Your task to perform on an android device: Go to Yahoo.com Image 0: 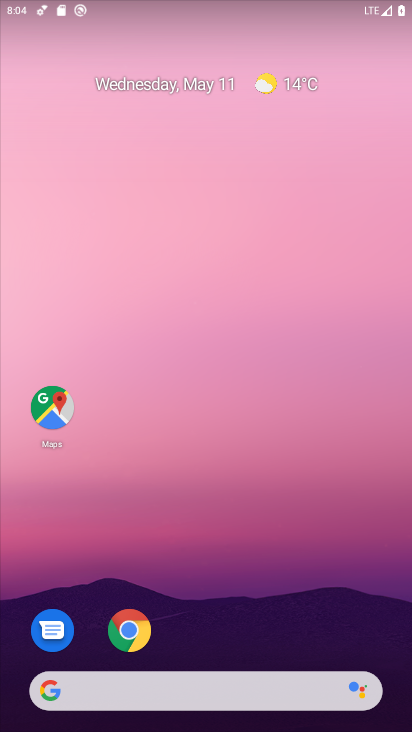
Step 0: click (127, 625)
Your task to perform on an android device: Go to Yahoo.com Image 1: 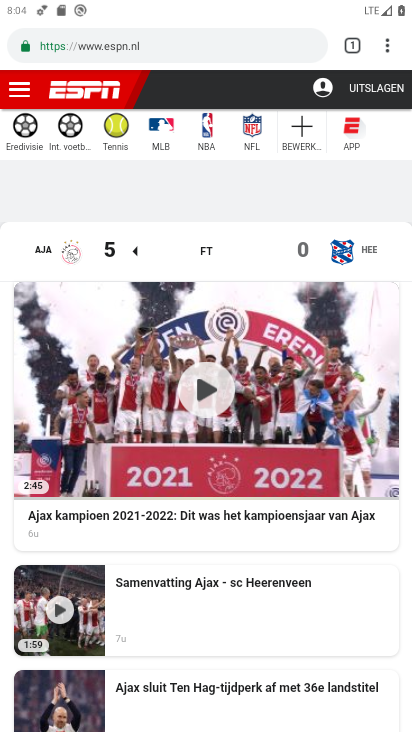
Step 1: press back button
Your task to perform on an android device: Go to Yahoo.com Image 2: 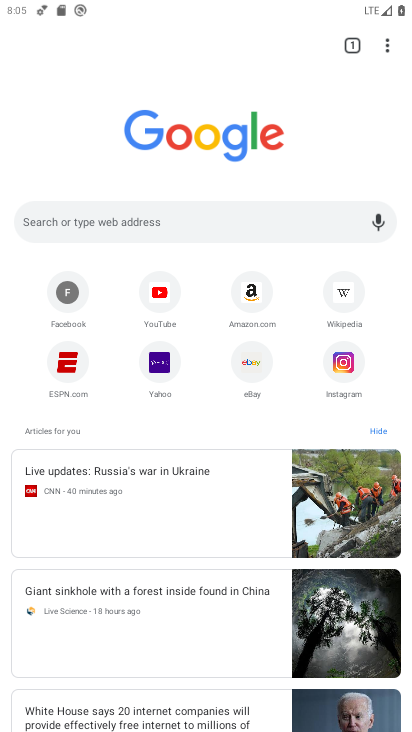
Step 2: click (170, 355)
Your task to perform on an android device: Go to Yahoo.com Image 3: 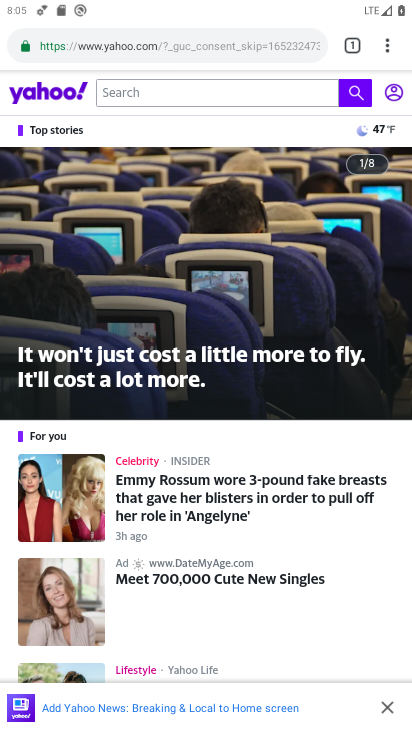
Step 3: task complete